Your task to perform on an android device: Go to sound settings Image 0: 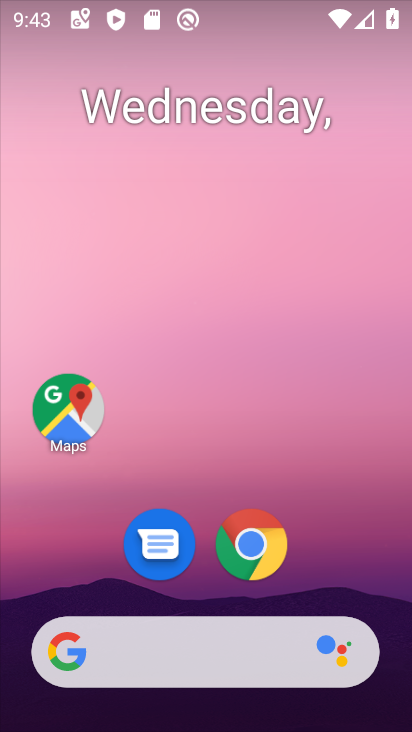
Step 0: drag from (388, 582) to (411, 181)
Your task to perform on an android device: Go to sound settings Image 1: 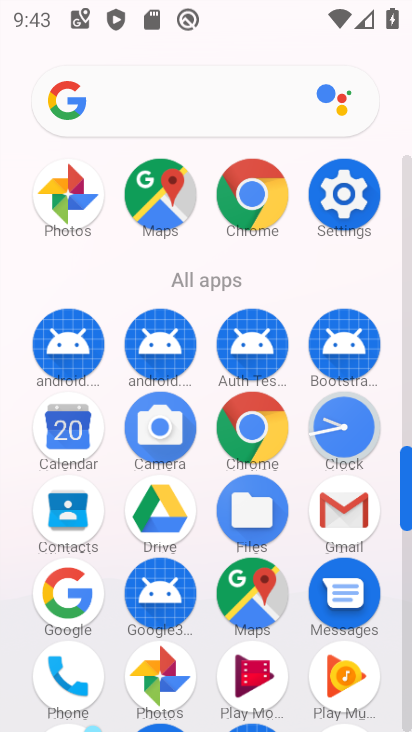
Step 1: click (339, 203)
Your task to perform on an android device: Go to sound settings Image 2: 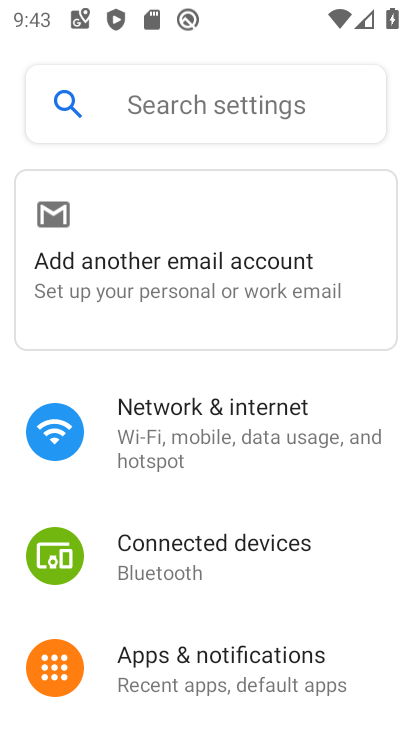
Step 2: drag from (371, 601) to (388, 238)
Your task to perform on an android device: Go to sound settings Image 3: 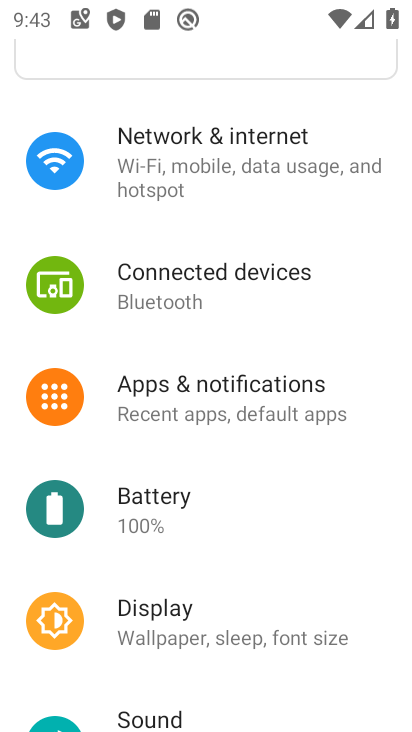
Step 3: drag from (368, 495) to (347, 163)
Your task to perform on an android device: Go to sound settings Image 4: 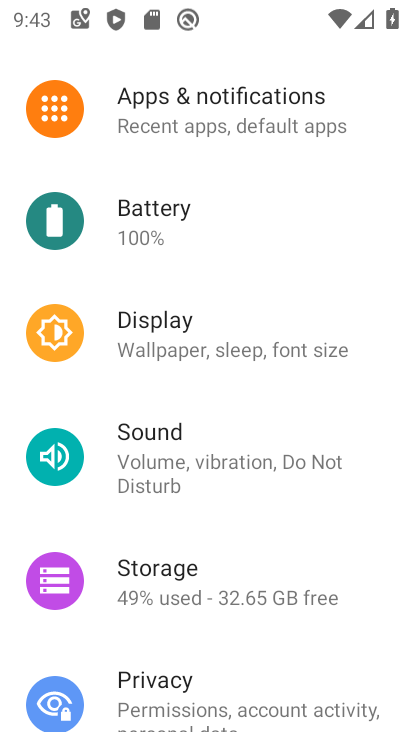
Step 4: click (147, 458)
Your task to perform on an android device: Go to sound settings Image 5: 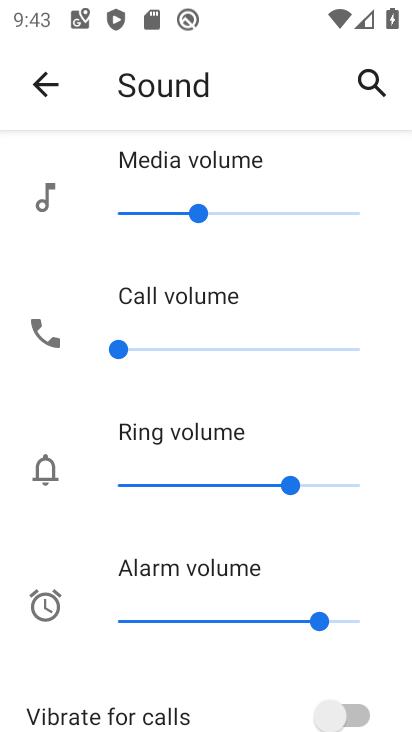
Step 5: task complete